Your task to perform on an android device: clear all cookies in the chrome app Image 0: 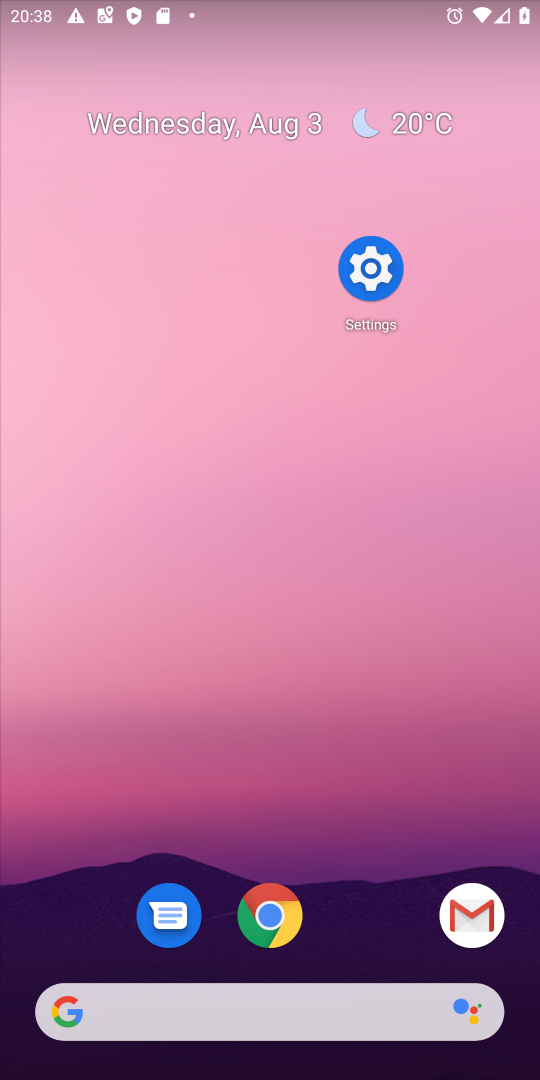
Step 0: press home button
Your task to perform on an android device: clear all cookies in the chrome app Image 1: 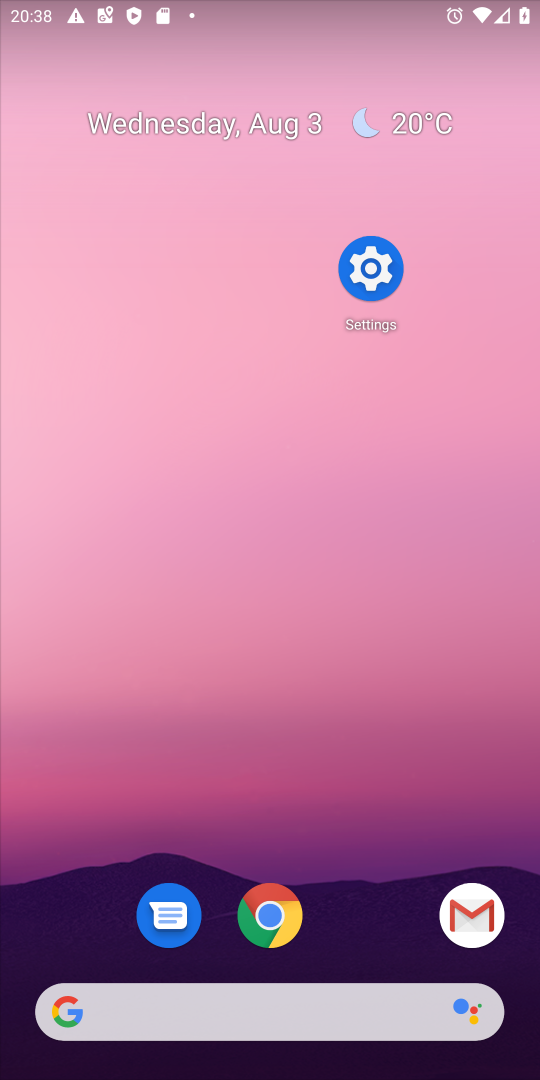
Step 1: drag from (290, 1052) to (122, 303)
Your task to perform on an android device: clear all cookies in the chrome app Image 2: 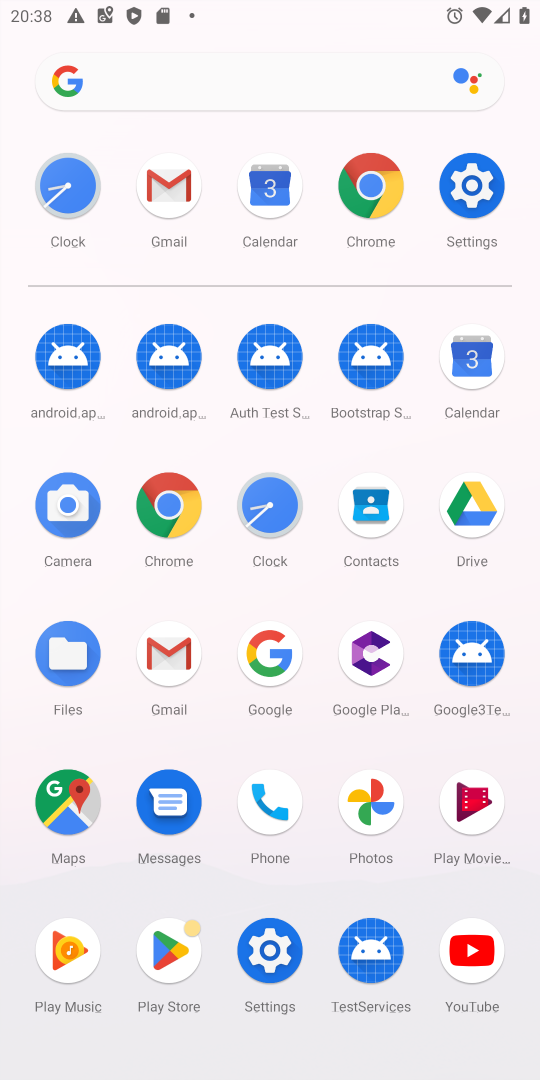
Step 2: click (355, 199)
Your task to perform on an android device: clear all cookies in the chrome app Image 3: 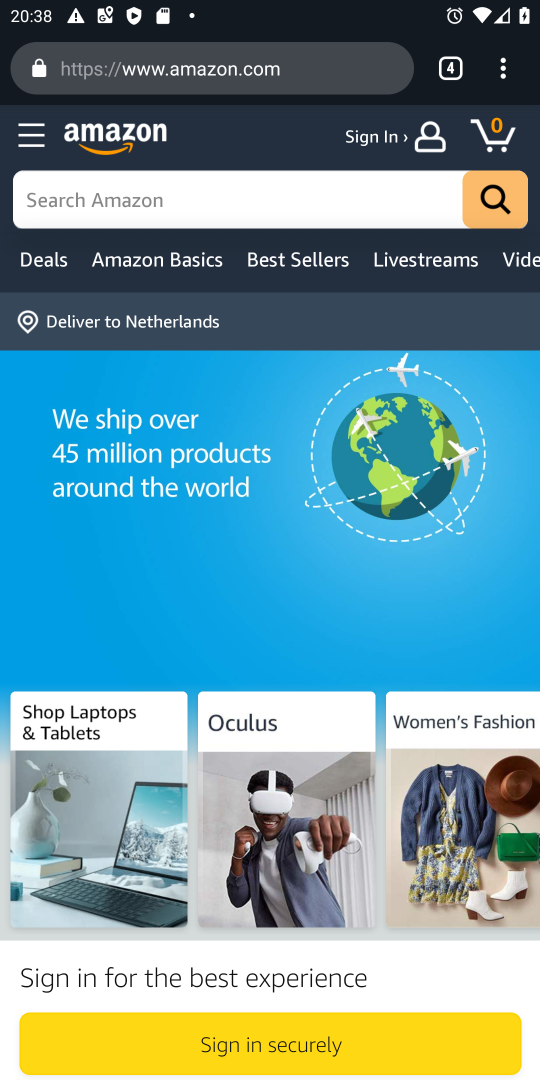
Step 3: click (504, 66)
Your task to perform on an android device: clear all cookies in the chrome app Image 4: 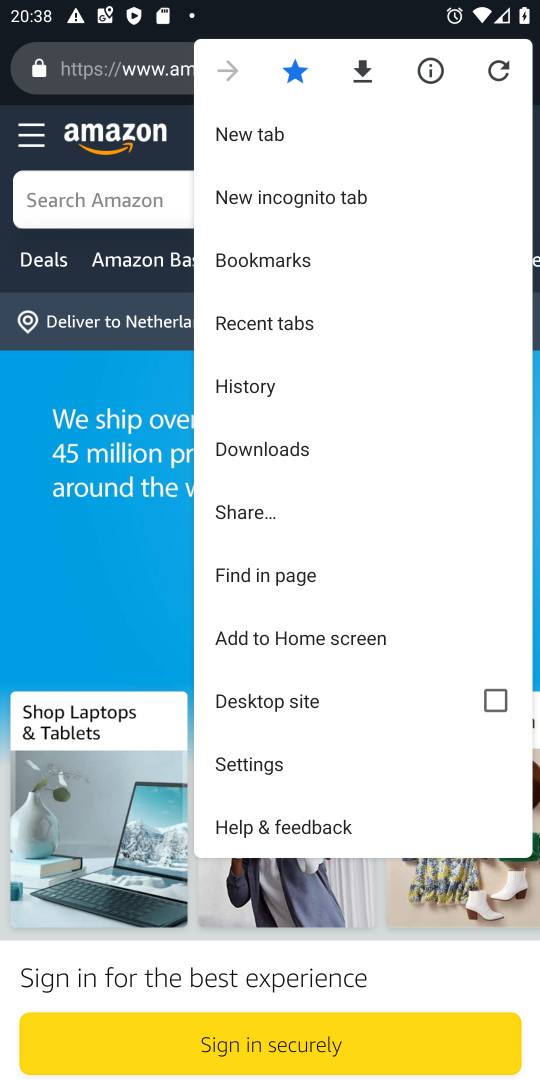
Step 4: click (258, 768)
Your task to perform on an android device: clear all cookies in the chrome app Image 5: 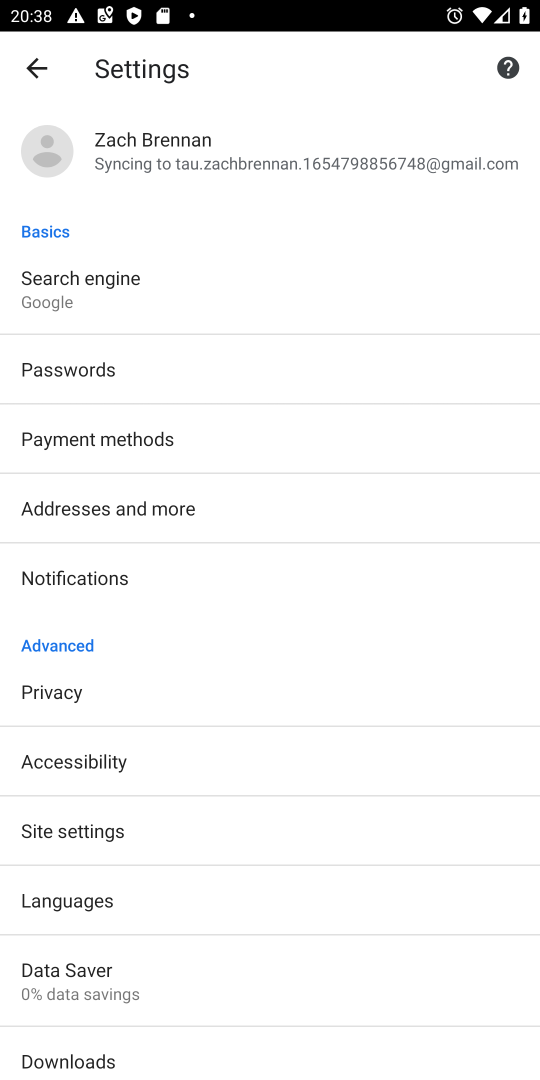
Step 5: click (141, 828)
Your task to perform on an android device: clear all cookies in the chrome app Image 6: 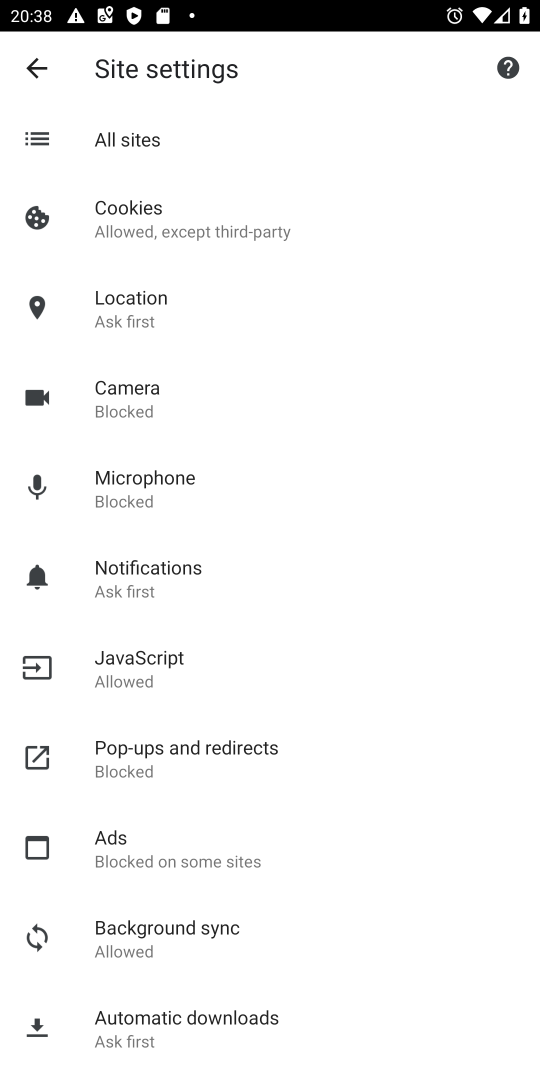
Step 6: click (142, 242)
Your task to perform on an android device: clear all cookies in the chrome app Image 7: 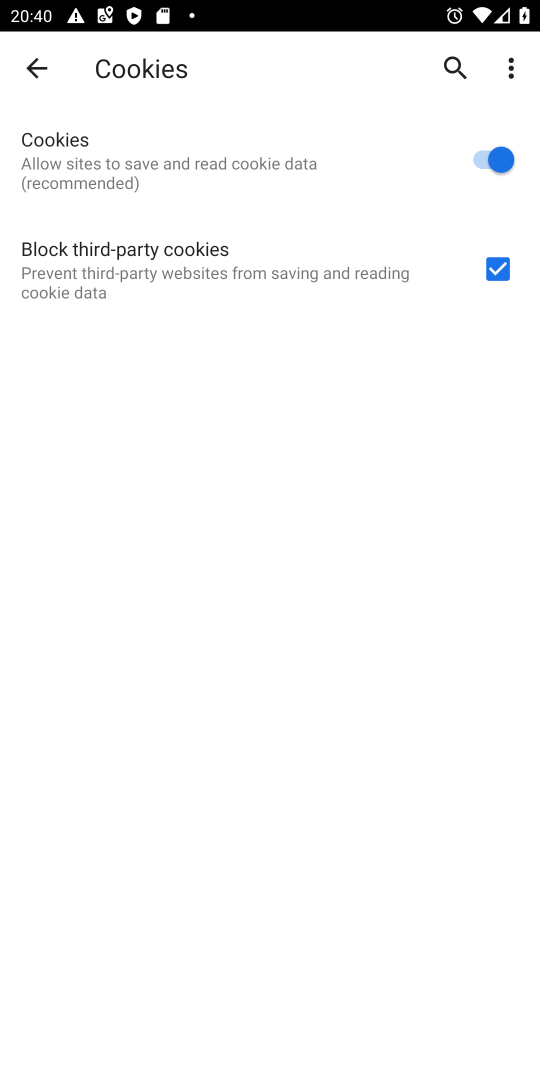
Step 7: task complete